Your task to perform on an android device: turn notification dots off Image 0: 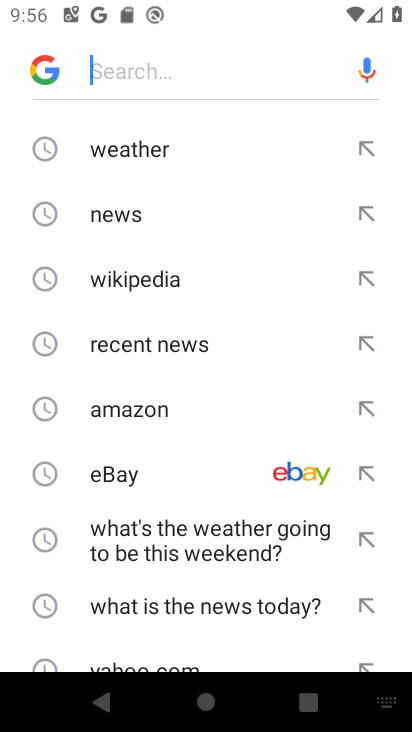
Step 0: press home button
Your task to perform on an android device: turn notification dots off Image 1: 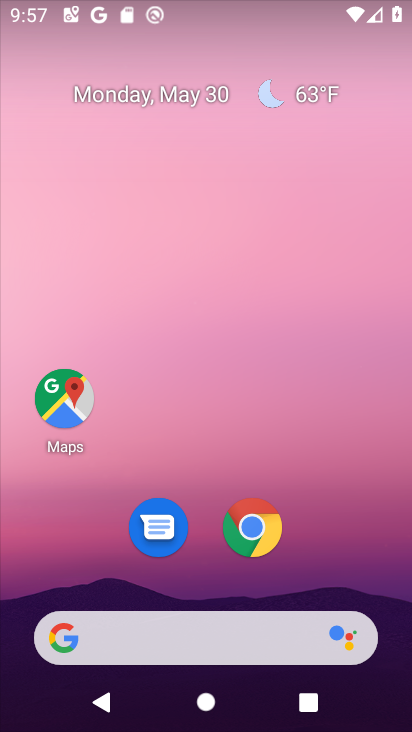
Step 1: drag from (274, 421) to (249, 165)
Your task to perform on an android device: turn notification dots off Image 2: 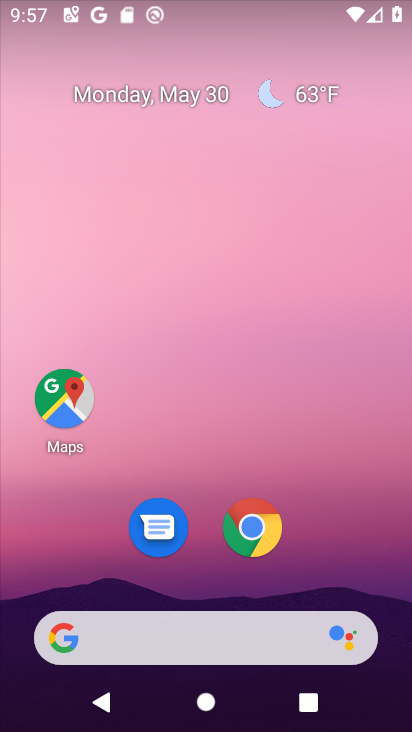
Step 2: drag from (200, 567) to (183, 136)
Your task to perform on an android device: turn notification dots off Image 3: 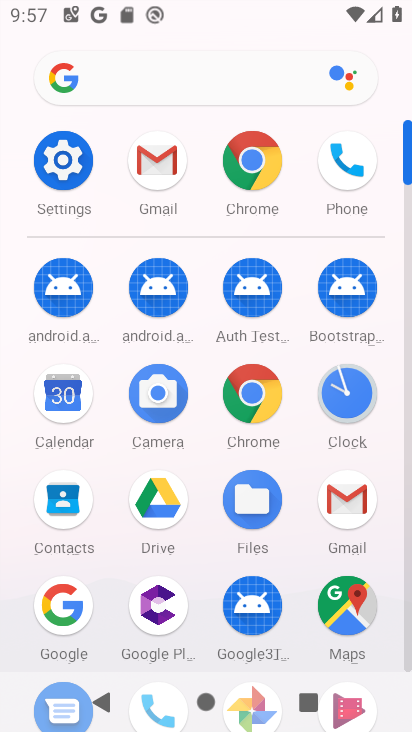
Step 3: click (56, 155)
Your task to perform on an android device: turn notification dots off Image 4: 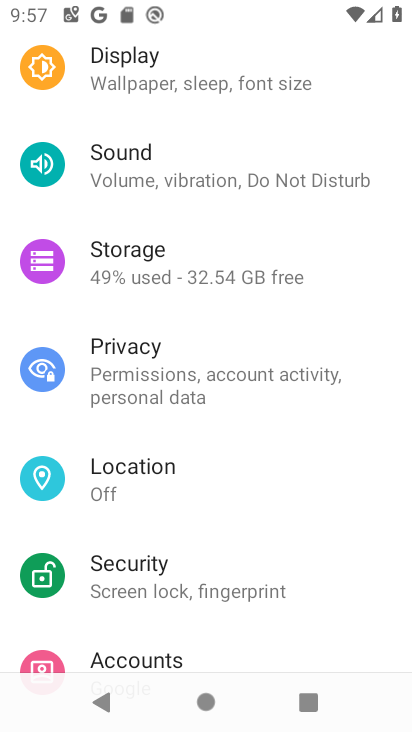
Step 4: drag from (227, 194) to (246, 599)
Your task to perform on an android device: turn notification dots off Image 5: 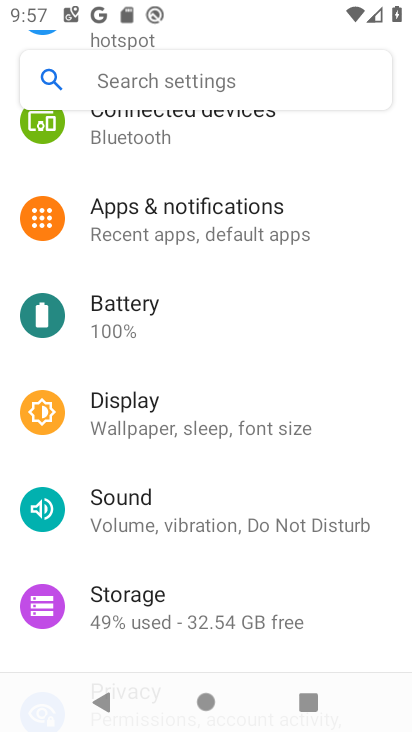
Step 5: click (191, 73)
Your task to perform on an android device: turn notification dots off Image 6: 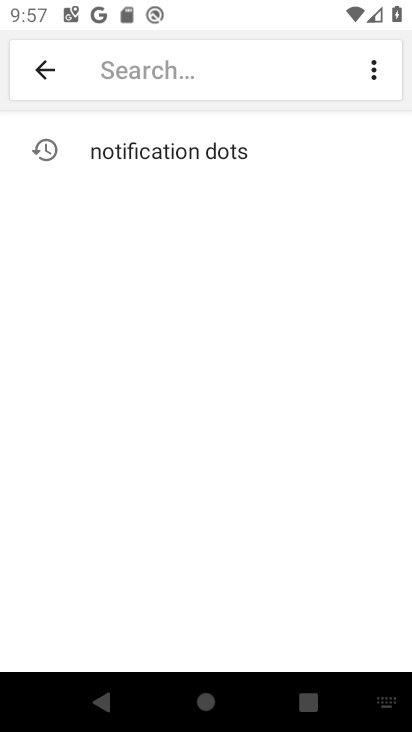
Step 6: type " notification dots "
Your task to perform on an android device: turn notification dots off Image 7: 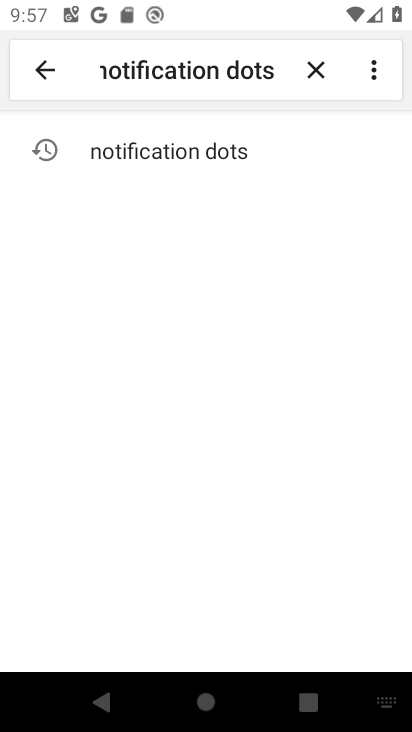
Step 7: click (145, 143)
Your task to perform on an android device: turn notification dots off Image 8: 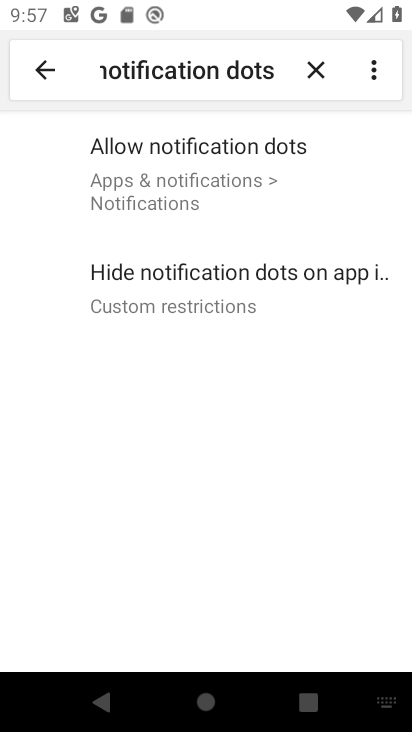
Step 8: click (133, 161)
Your task to perform on an android device: turn notification dots off Image 9: 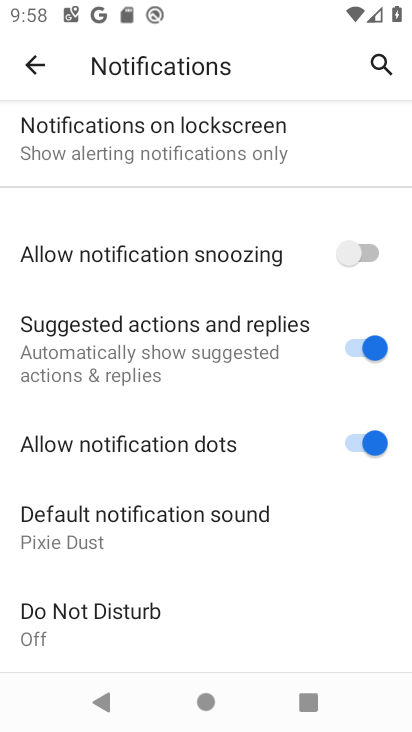
Step 9: click (368, 436)
Your task to perform on an android device: turn notification dots off Image 10: 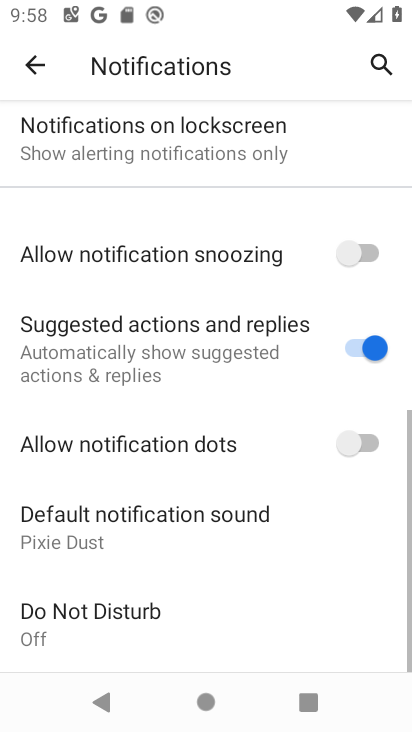
Step 10: task complete